Your task to perform on an android device: allow notifications from all sites in the chrome app Image 0: 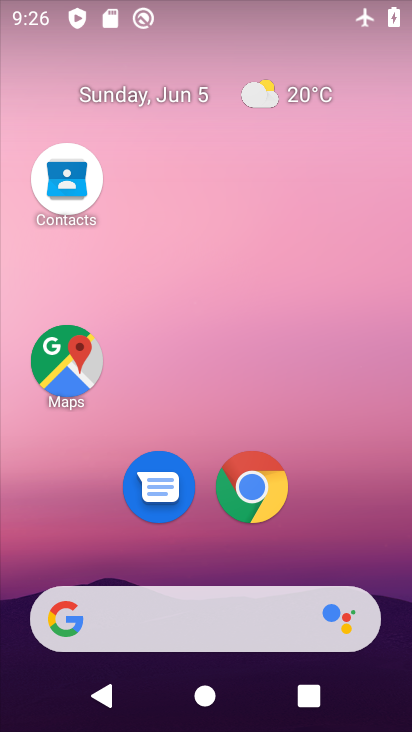
Step 0: drag from (238, 595) to (277, 259)
Your task to perform on an android device: allow notifications from all sites in the chrome app Image 1: 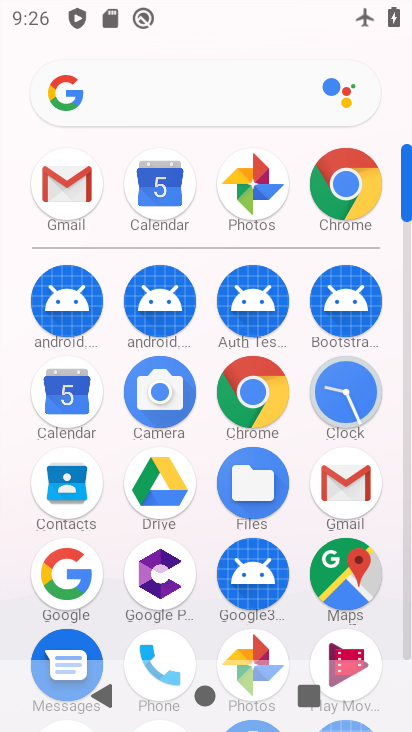
Step 1: click (350, 205)
Your task to perform on an android device: allow notifications from all sites in the chrome app Image 2: 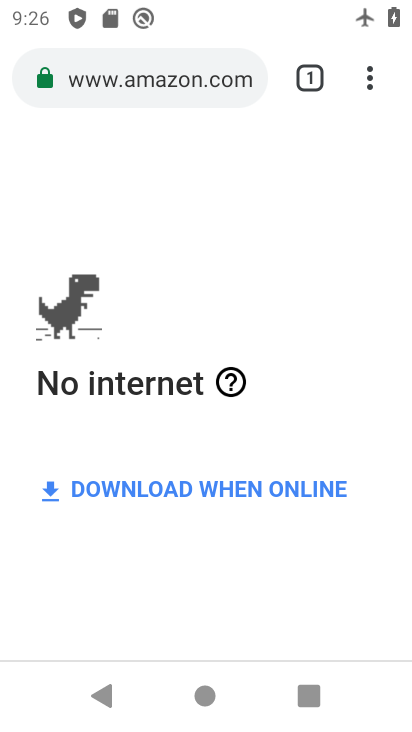
Step 2: click (377, 92)
Your task to perform on an android device: allow notifications from all sites in the chrome app Image 3: 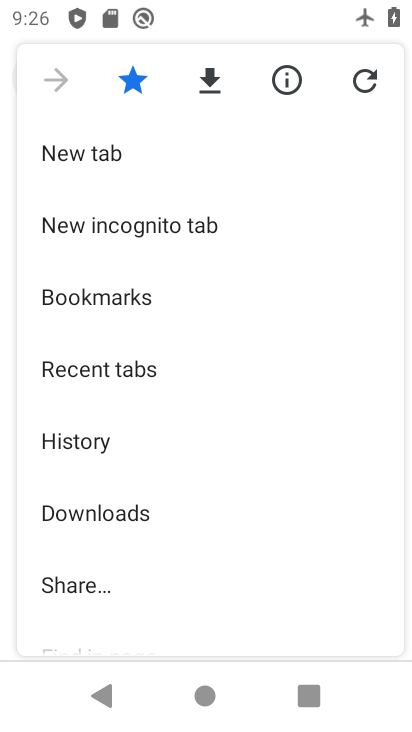
Step 3: drag from (178, 533) to (261, 139)
Your task to perform on an android device: allow notifications from all sites in the chrome app Image 4: 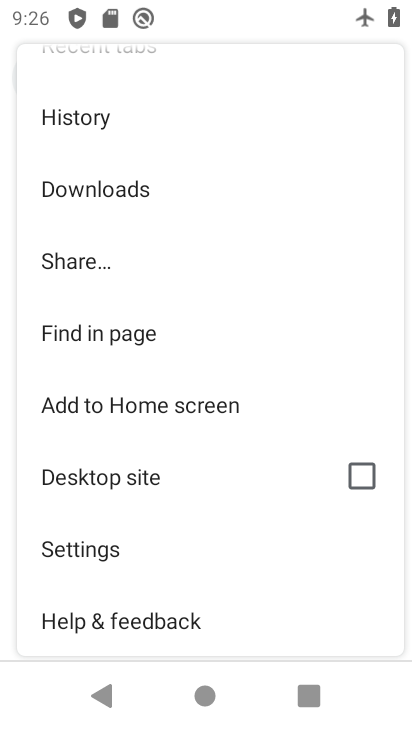
Step 4: click (142, 550)
Your task to perform on an android device: allow notifications from all sites in the chrome app Image 5: 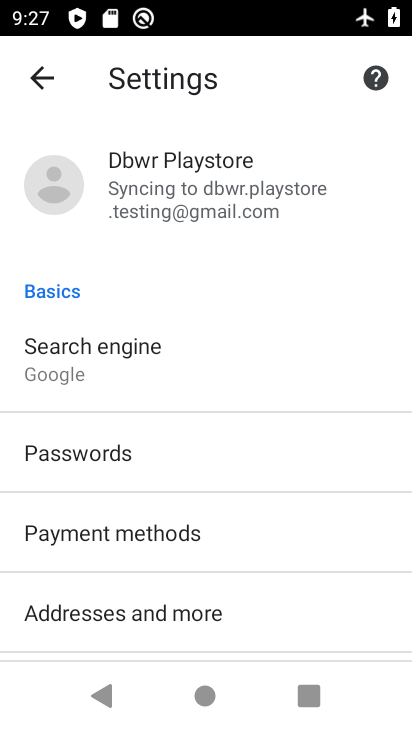
Step 5: drag from (181, 592) to (254, 153)
Your task to perform on an android device: allow notifications from all sites in the chrome app Image 6: 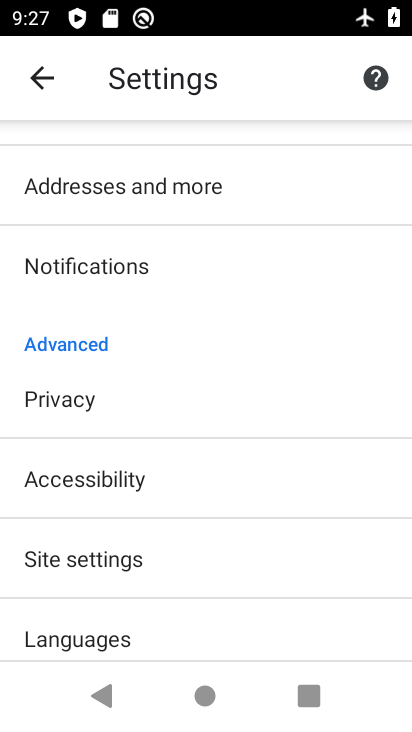
Step 6: click (155, 263)
Your task to perform on an android device: allow notifications from all sites in the chrome app Image 7: 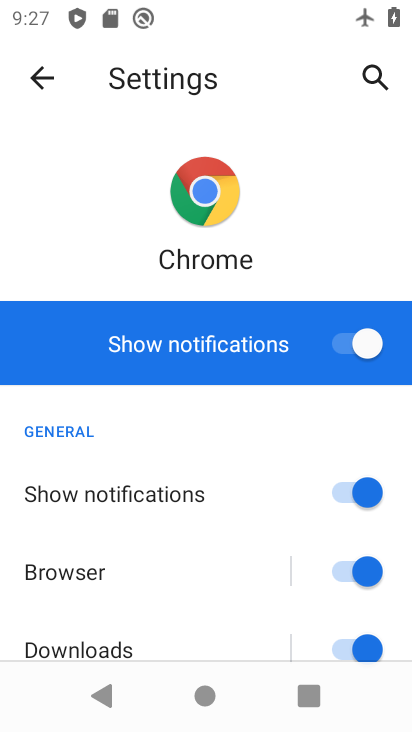
Step 7: task complete